Your task to perform on an android device: Find coffee shops on Maps Image 0: 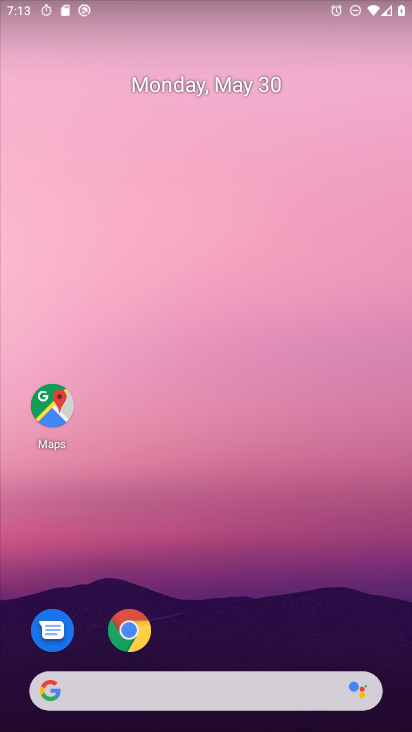
Step 0: drag from (333, 651) to (291, 21)
Your task to perform on an android device: Find coffee shops on Maps Image 1: 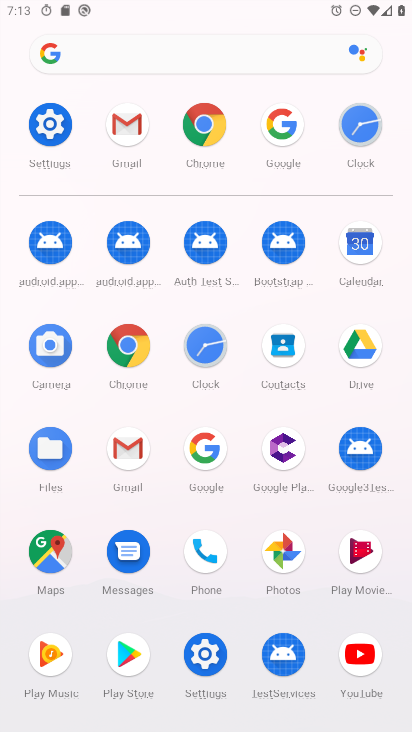
Step 1: click (26, 550)
Your task to perform on an android device: Find coffee shops on Maps Image 2: 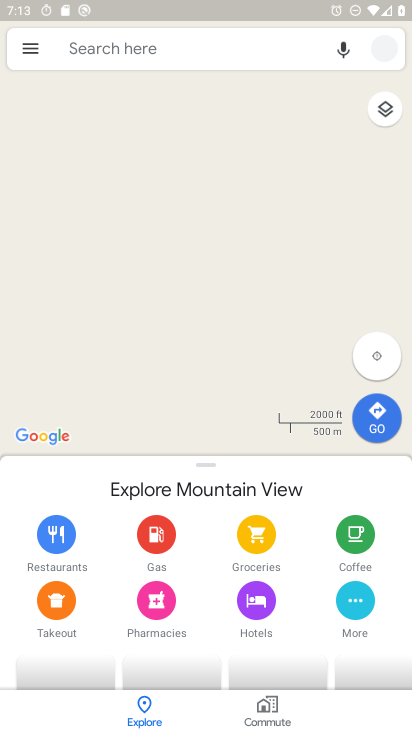
Step 2: click (184, 59)
Your task to perform on an android device: Find coffee shops on Maps Image 3: 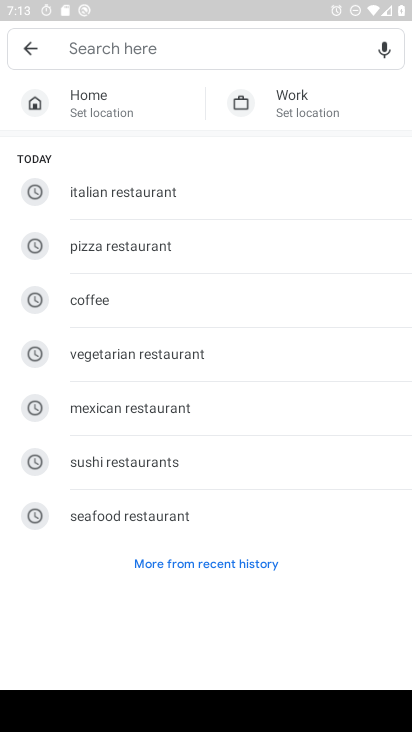
Step 3: click (114, 302)
Your task to perform on an android device: Find coffee shops on Maps Image 4: 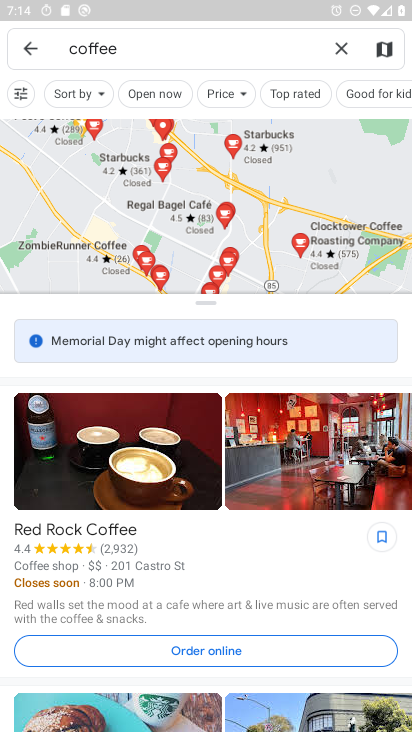
Step 4: task complete